Your task to perform on an android device: Go to display settings Image 0: 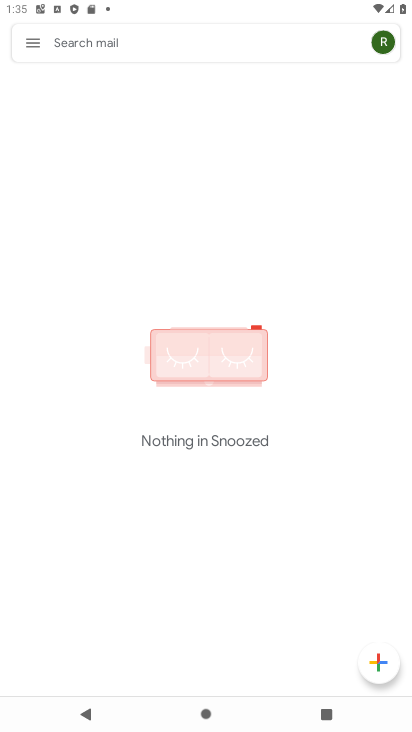
Step 0: press home button
Your task to perform on an android device: Go to display settings Image 1: 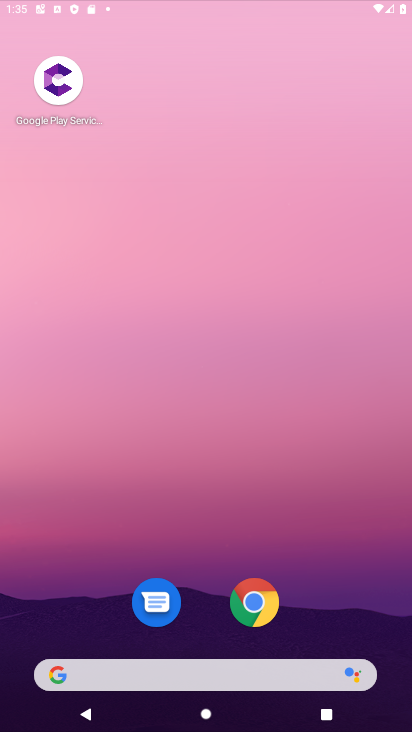
Step 1: drag from (379, 648) to (183, 36)
Your task to perform on an android device: Go to display settings Image 2: 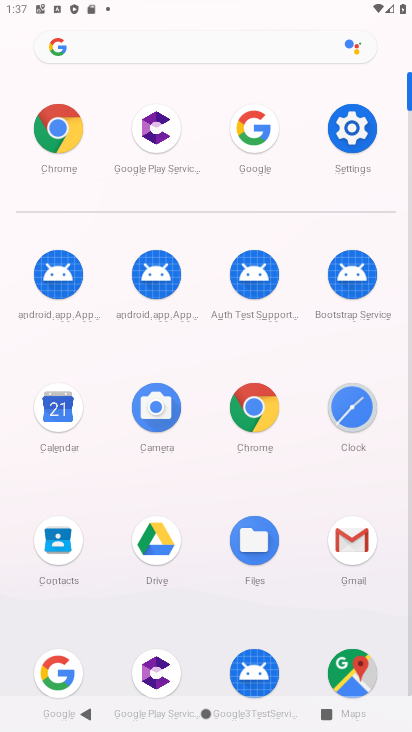
Step 2: click (339, 139)
Your task to perform on an android device: Go to display settings Image 3: 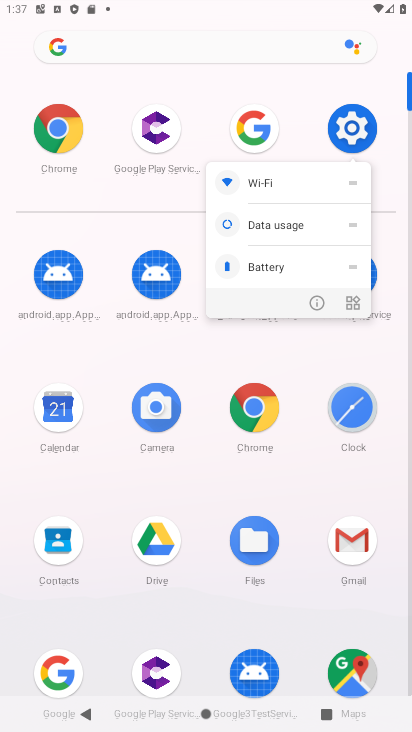
Step 3: click (339, 139)
Your task to perform on an android device: Go to display settings Image 4: 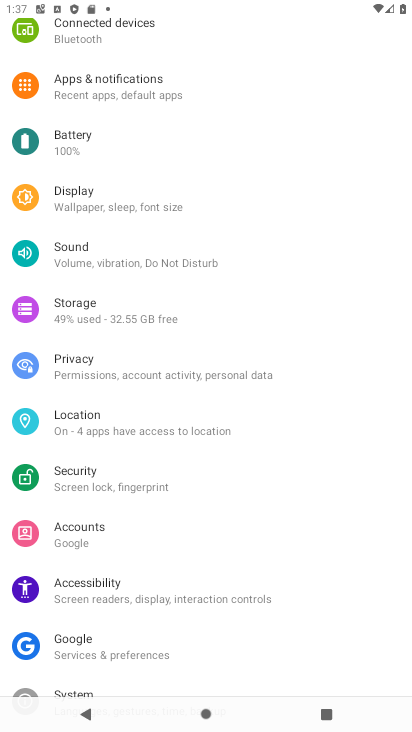
Step 4: click (82, 202)
Your task to perform on an android device: Go to display settings Image 5: 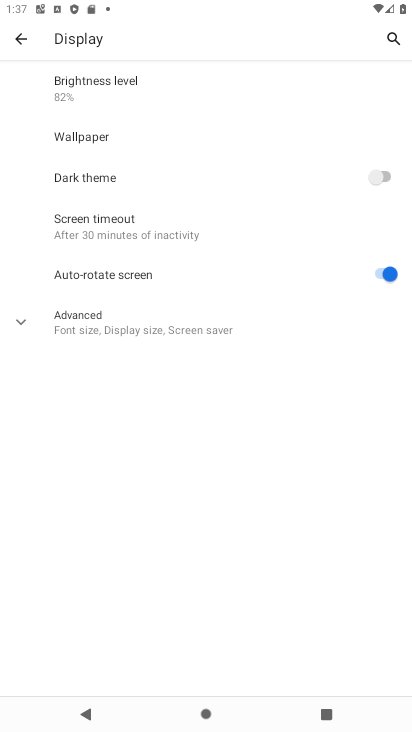
Step 5: task complete